Your task to perform on an android device: turn on showing notifications on the lock screen Image 0: 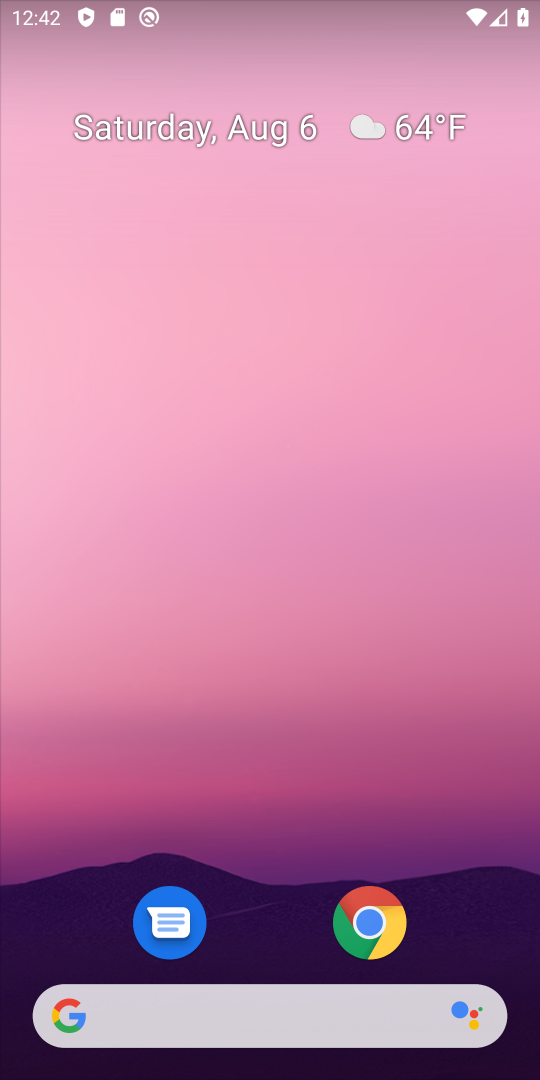
Step 0: drag from (274, 919) to (284, 327)
Your task to perform on an android device: turn on showing notifications on the lock screen Image 1: 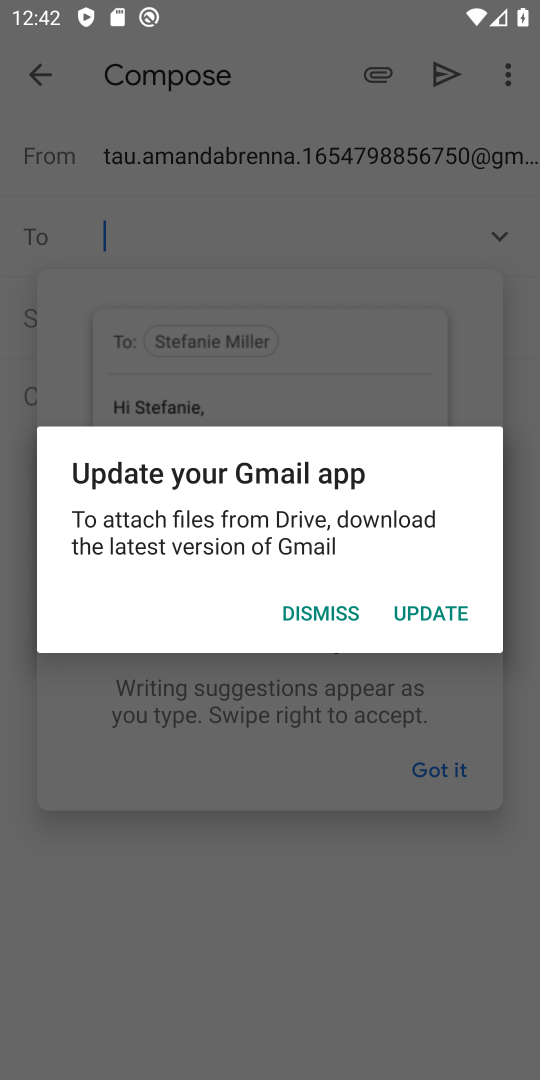
Step 1: press home button
Your task to perform on an android device: turn on showing notifications on the lock screen Image 2: 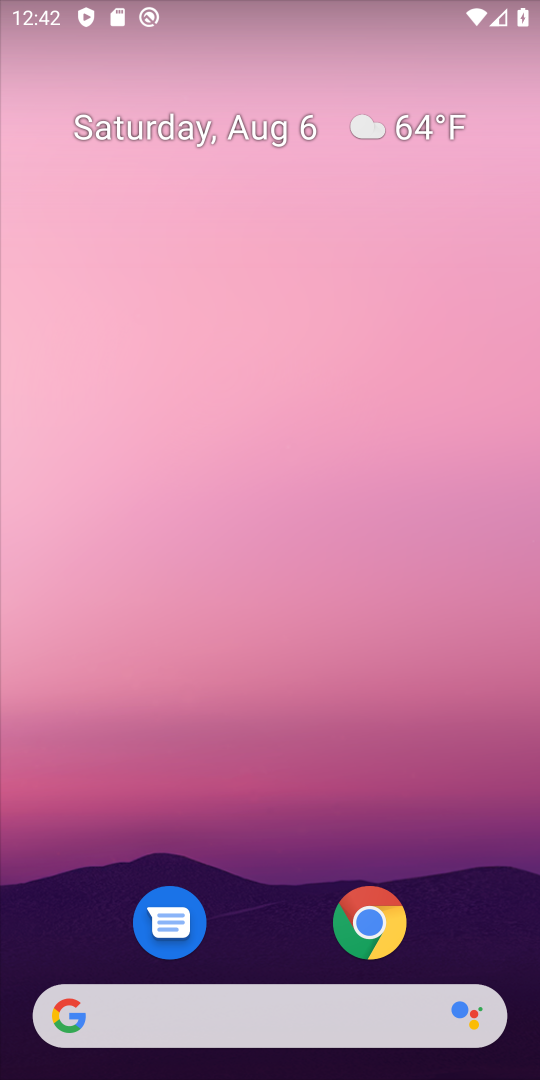
Step 2: drag from (270, 931) to (368, 9)
Your task to perform on an android device: turn on showing notifications on the lock screen Image 3: 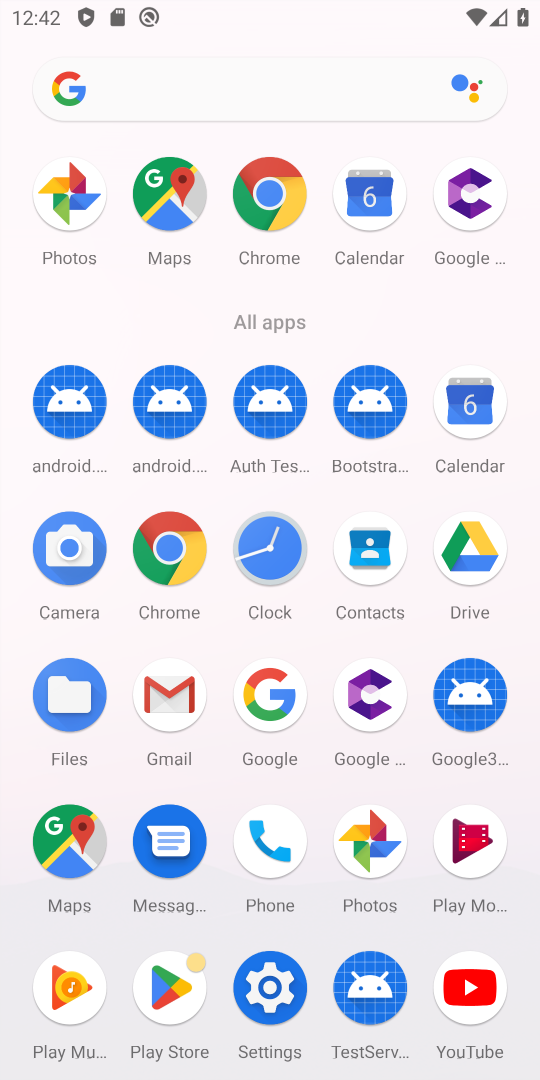
Step 3: click (274, 994)
Your task to perform on an android device: turn on showing notifications on the lock screen Image 4: 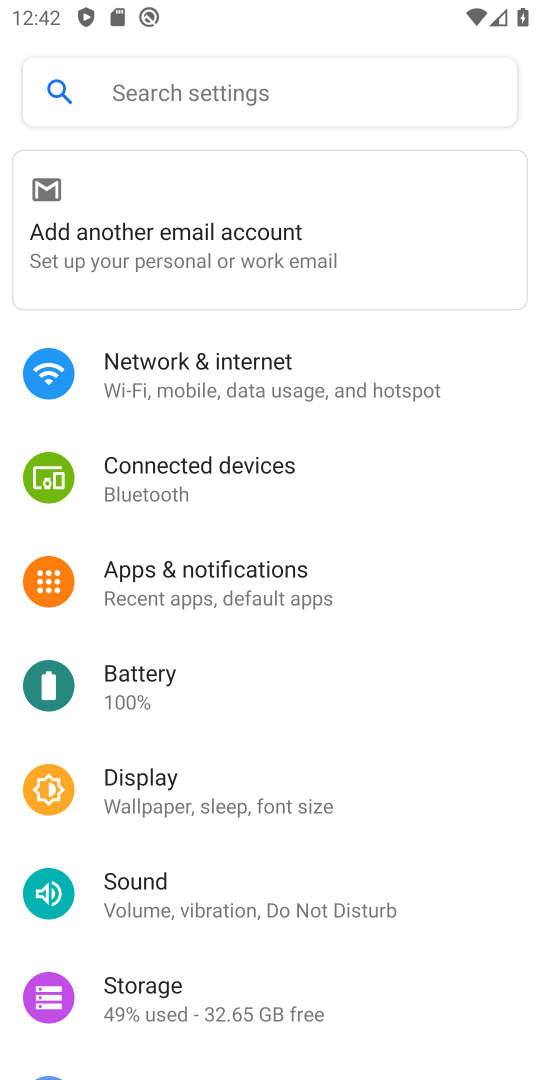
Step 4: click (248, 594)
Your task to perform on an android device: turn on showing notifications on the lock screen Image 5: 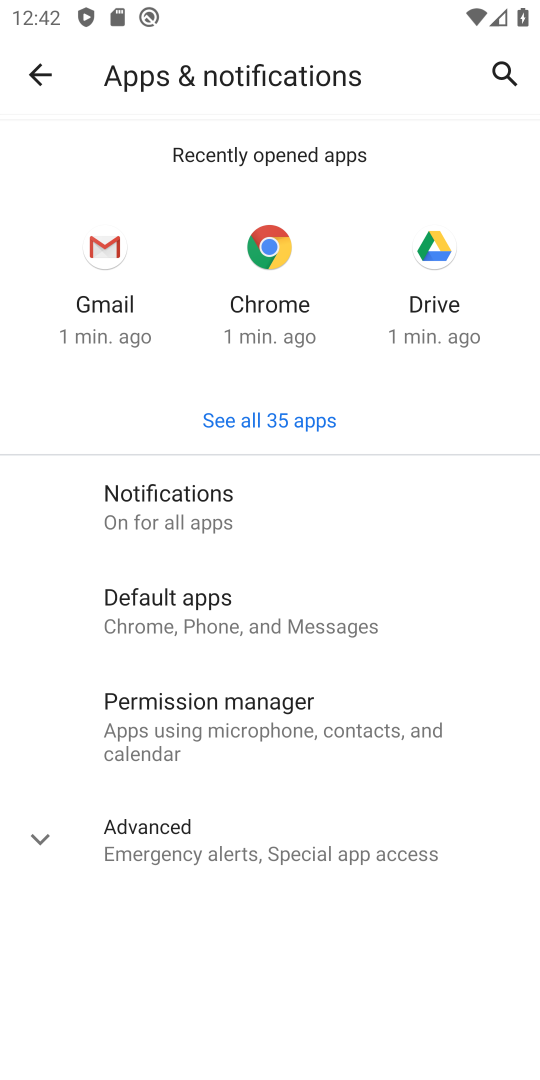
Step 5: click (189, 499)
Your task to perform on an android device: turn on showing notifications on the lock screen Image 6: 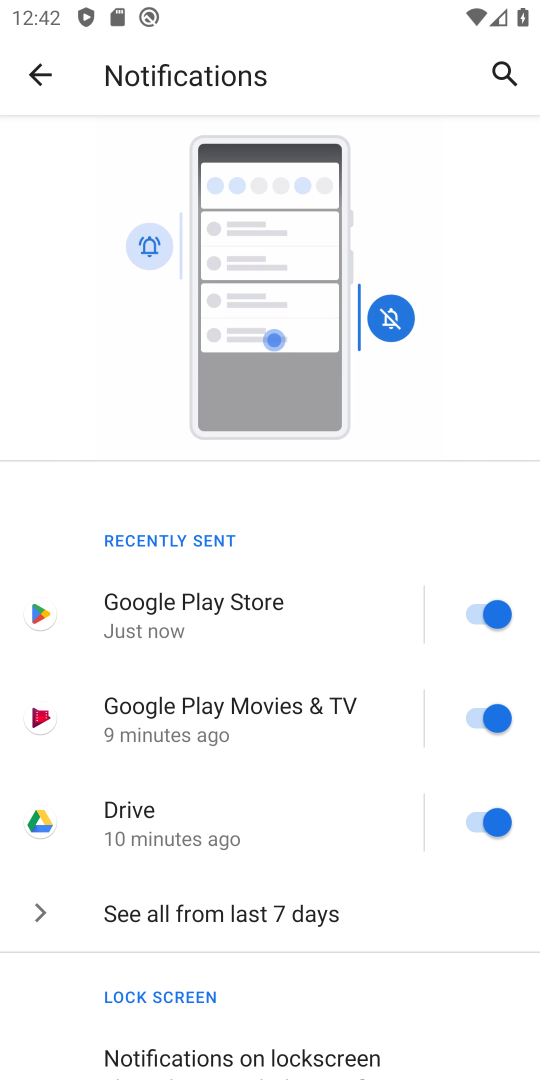
Step 6: drag from (242, 836) to (263, 341)
Your task to perform on an android device: turn on showing notifications on the lock screen Image 7: 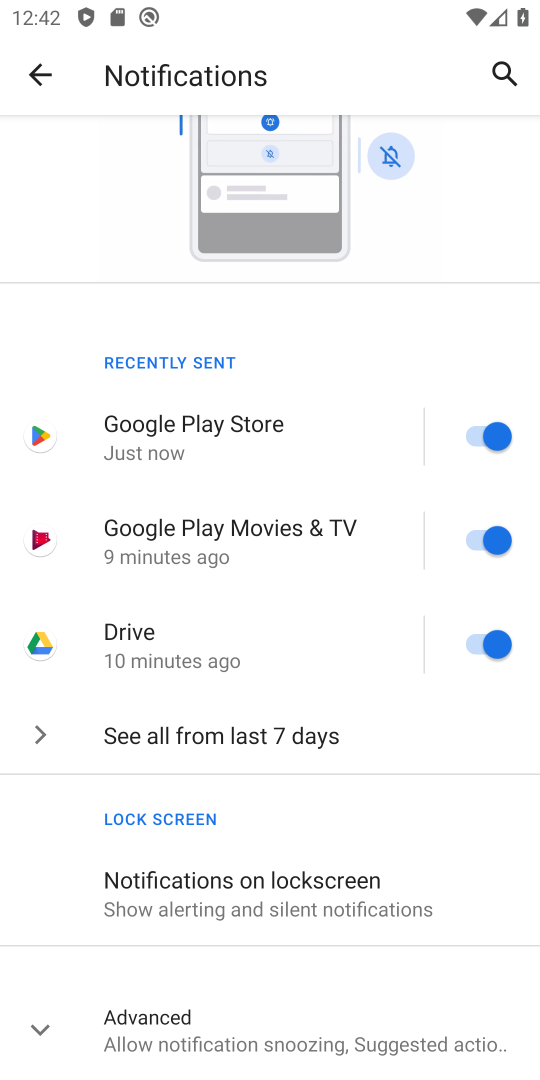
Step 7: drag from (231, 907) to (272, 720)
Your task to perform on an android device: turn on showing notifications on the lock screen Image 8: 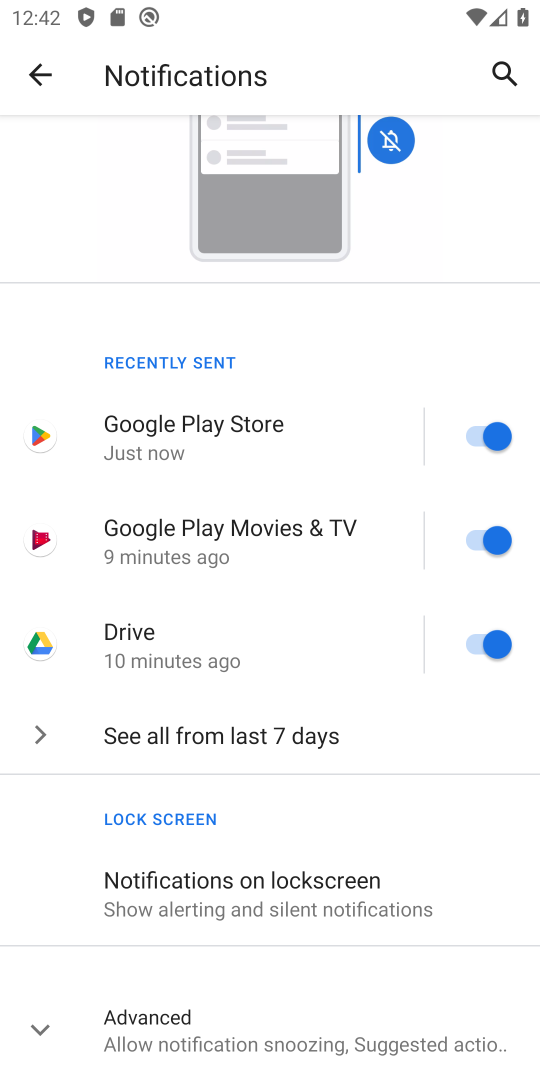
Step 8: click (186, 893)
Your task to perform on an android device: turn on showing notifications on the lock screen Image 9: 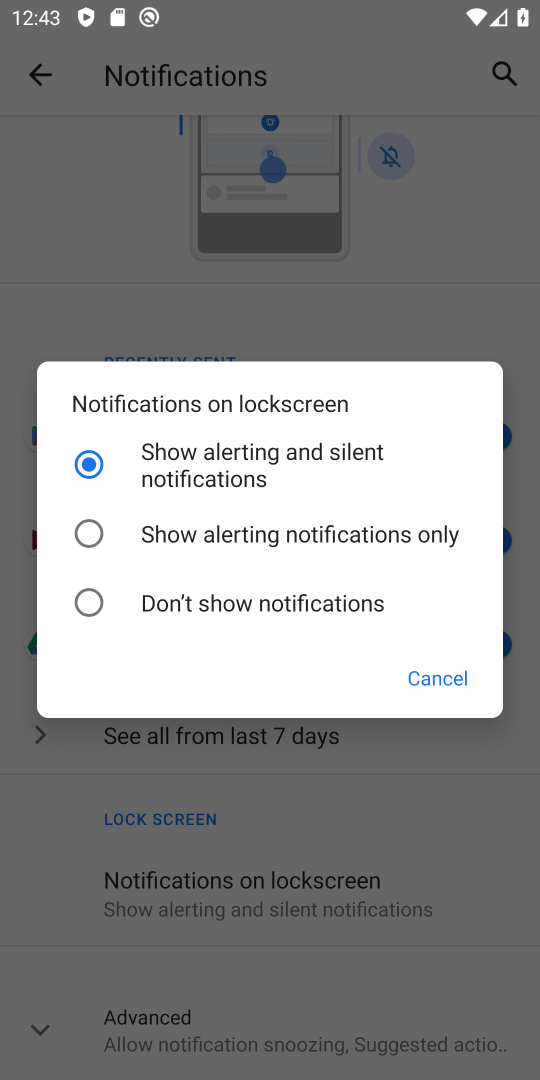
Step 9: task complete